Your task to perform on an android device: turn pop-ups off in chrome Image 0: 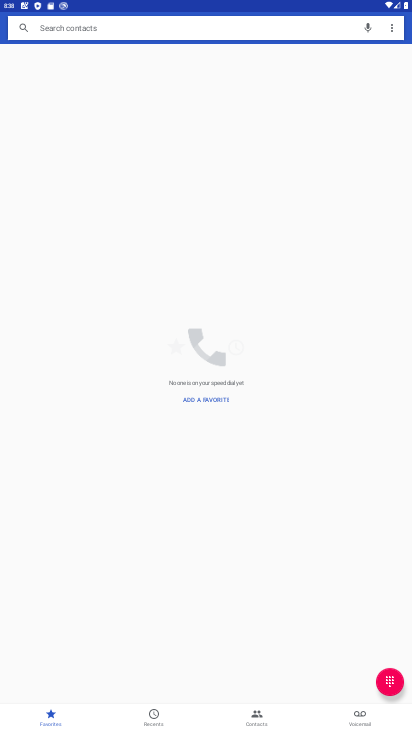
Step 0: press home button
Your task to perform on an android device: turn pop-ups off in chrome Image 1: 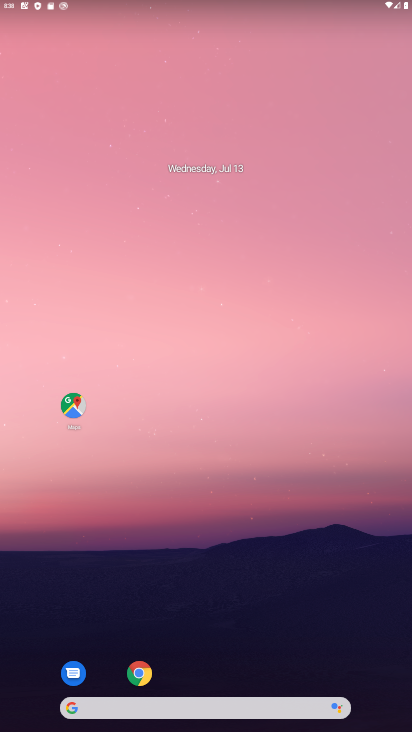
Step 1: click (136, 667)
Your task to perform on an android device: turn pop-ups off in chrome Image 2: 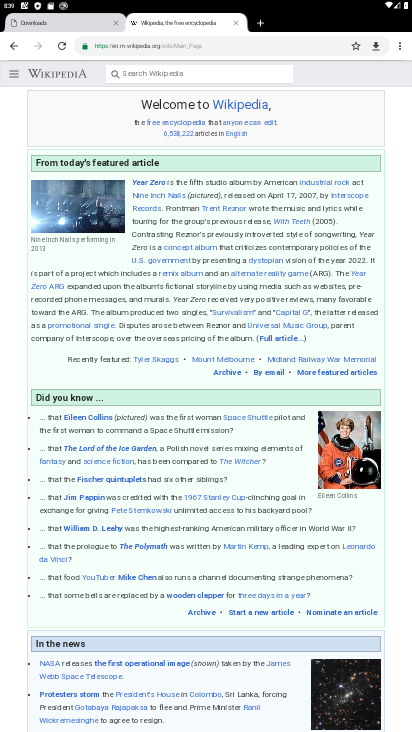
Step 2: click (397, 43)
Your task to perform on an android device: turn pop-ups off in chrome Image 3: 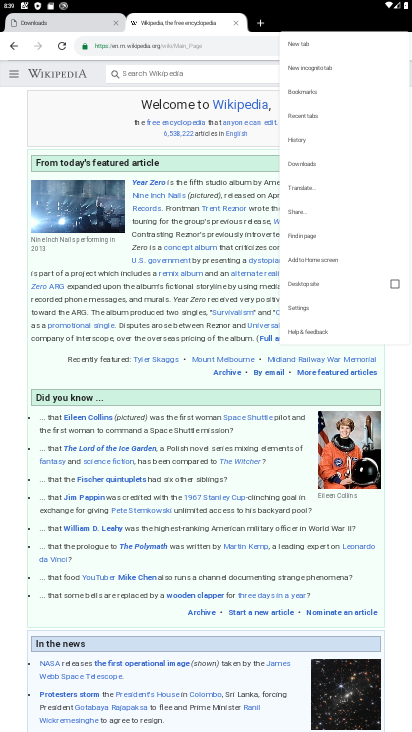
Step 3: click (338, 313)
Your task to perform on an android device: turn pop-ups off in chrome Image 4: 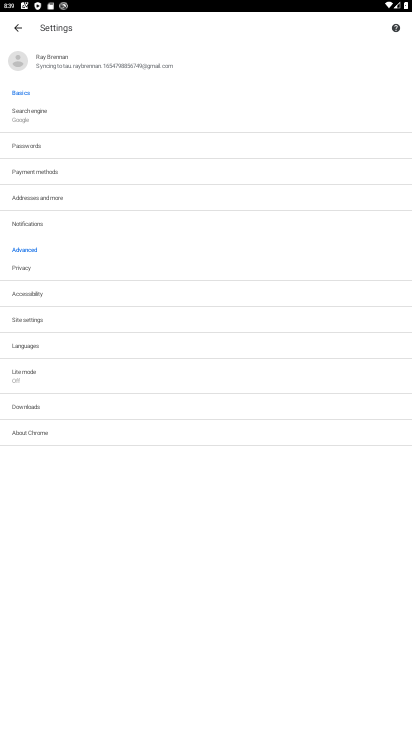
Step 4: click (184, 317)
Your task to perform on an android device: turn pop-ups off in chrome Image 5: 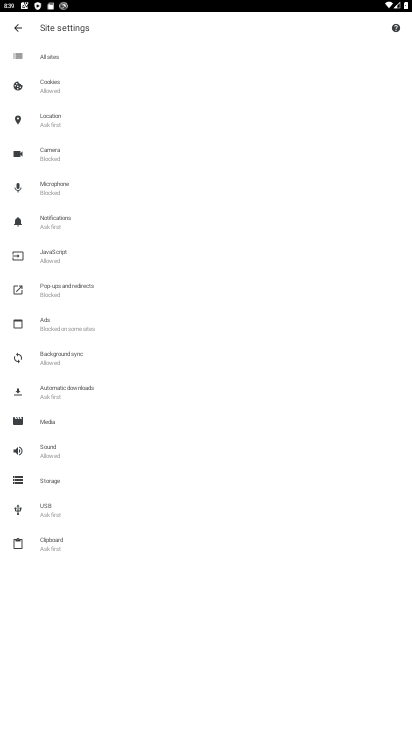
Step 5: click (56, 292)
Your task to perform on an android device: turn pop-ups off in chrome Image 6: 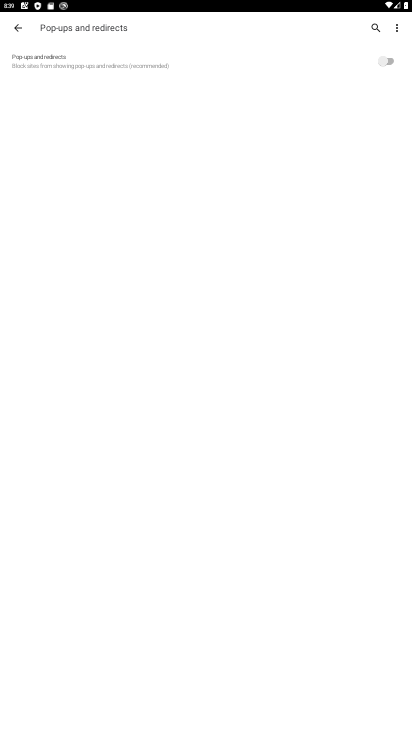
Step 6: click (390, 59)
Your task to perform on an android device: turn pop-ups off in chrome Image 7: 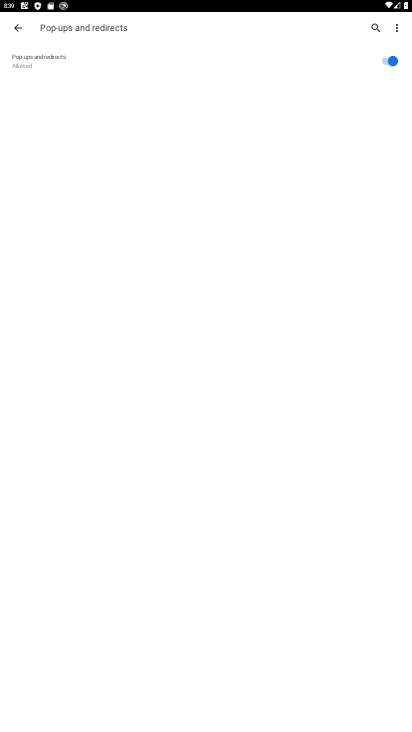
Step 7: task complete